Your task to perform on an android device: open a new tab in the chrome app Image 0: 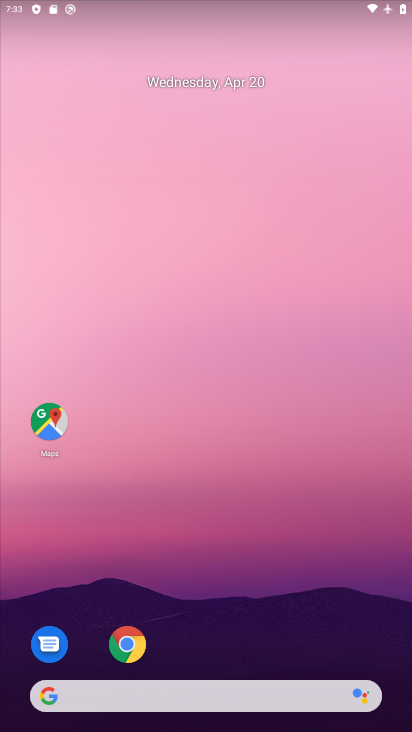
Step 0: drag from (324, 637) to (241, 39)
Your task to perform on an android device: open a new tab in the chrome app Image 1: 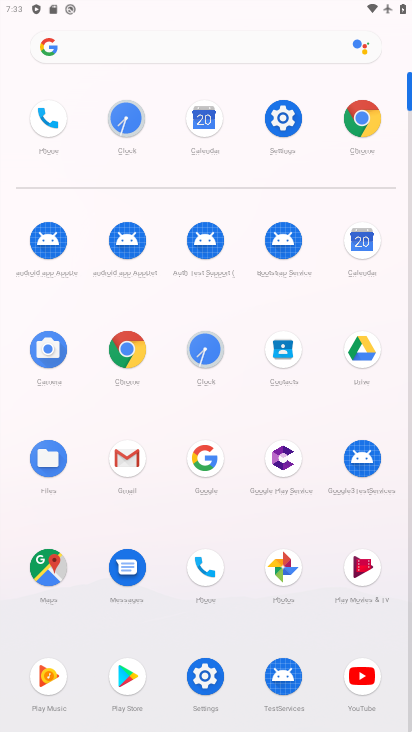
Step 1: click (354, 120)
Your task to perform on an android device: open a new tab in the chrome app Image 2: 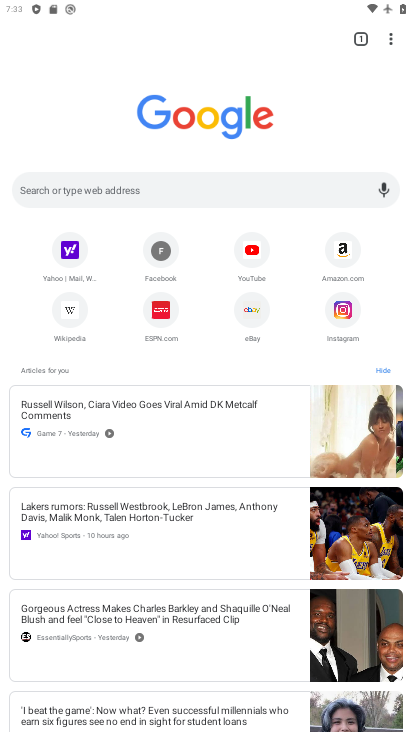
Step 2: click (357, 39)
Your task to perform on an android device: open a new tab in the chrome app Image 3: 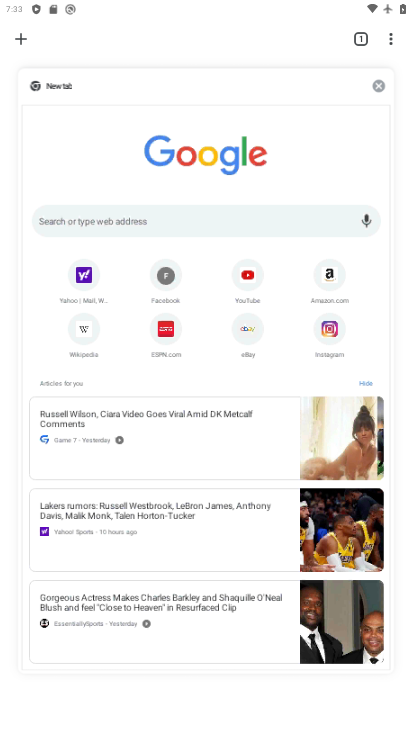
Step 3: click (22, 29)
Your task to perform on an android device: open a new tab in the chrome app Image 4: 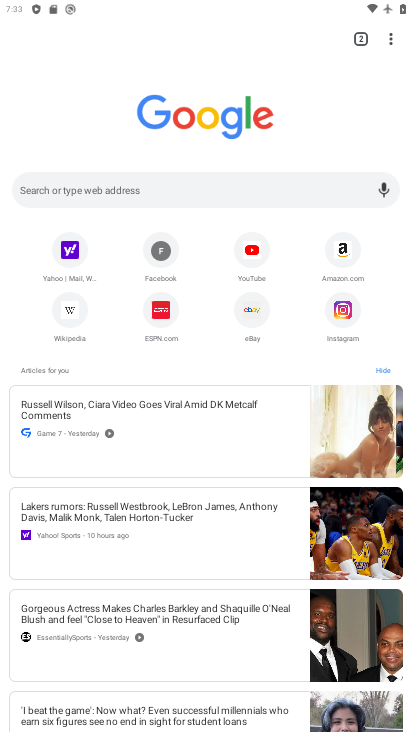
Step 4: task complete